Your task to perform on an android device: Open Google Maps and go to "Timeline" Image 0: 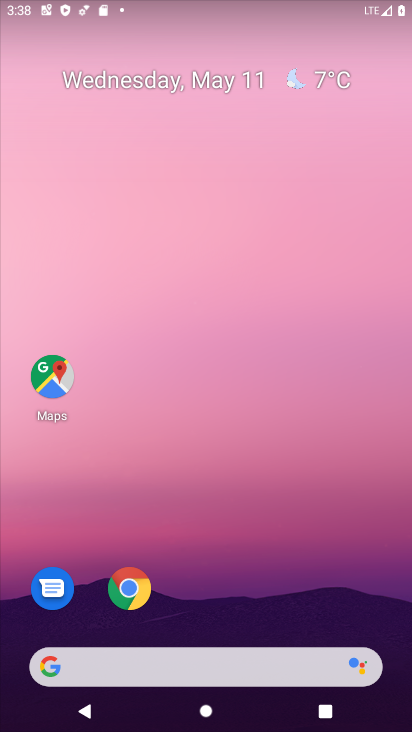
Step 0: drag from (219, 720) to (217, 205)
Your task to perform on an android device: Open Google Maps and go to "Timeline" Image 1: 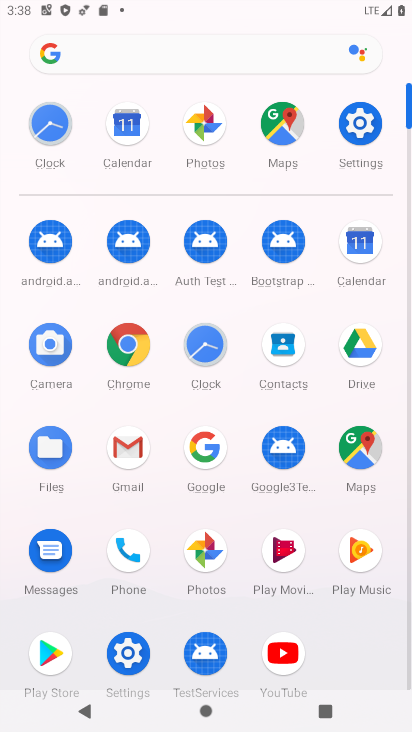
Step 1: click (358, 447)
Your task to perform on an android device: Open Google Maps and go to "Timeline" Image 2: 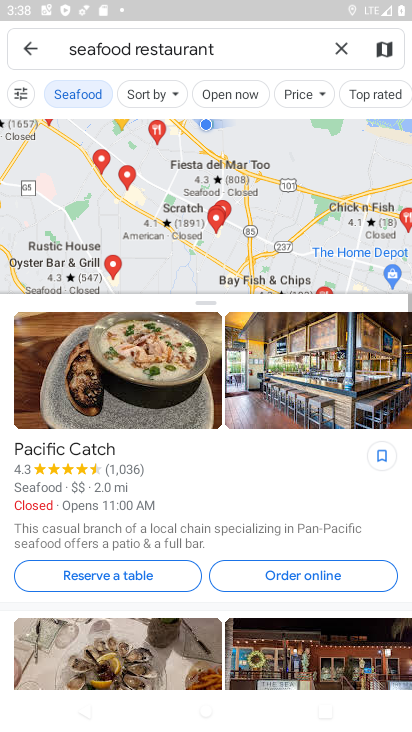
Step 2: click (30, 50)
Your task to perform on an android device: Open Google Maps and go to "Timeline" Image 3: 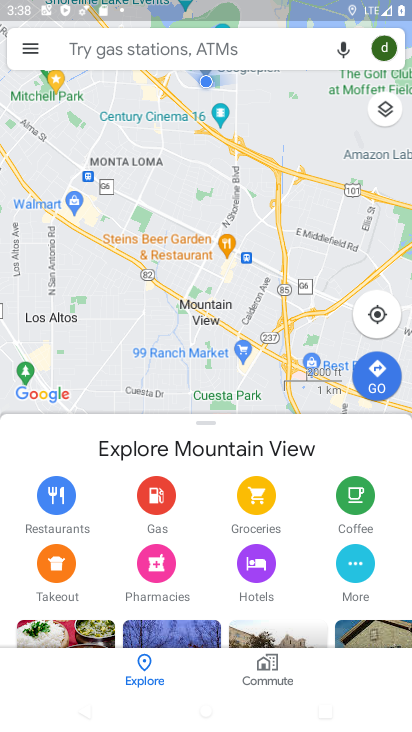
Step 3: click (30, 50)
Your task to perform on an android device: Open Google Maps and go to "Timeline" Image 4: 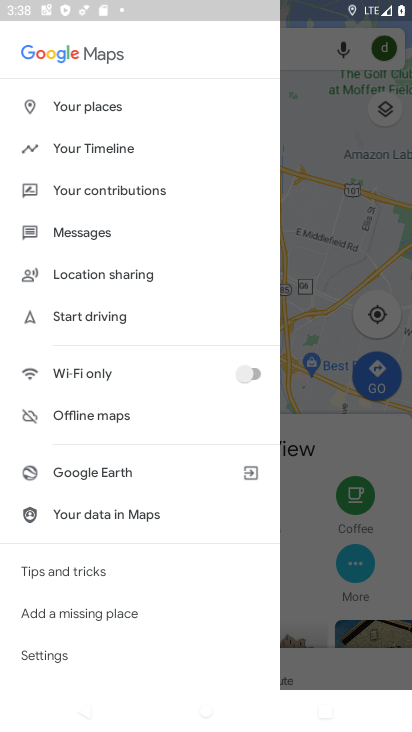
Step 4: click (93, 147)
Your task to perform on an android device: Open Google Maps and go to "Timeline" Image 5: 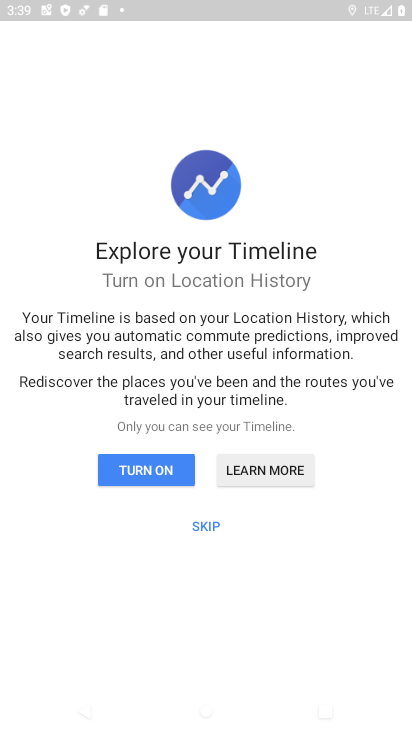
Step 5: click (211, 523)
Your task to perform on an android device: Open Google Maps and go to "Timeline" Image 6: 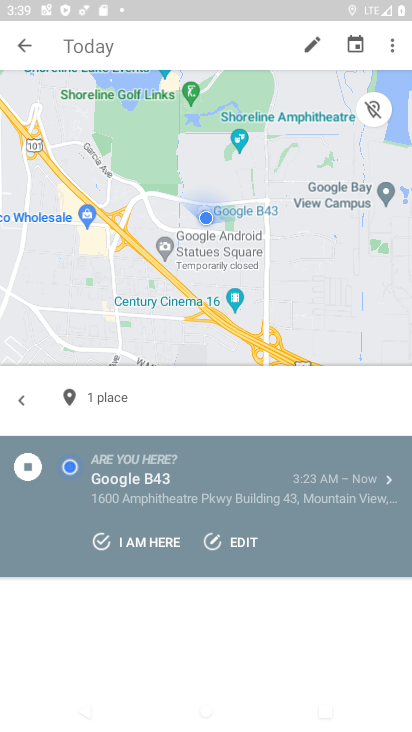
Step 6: task complete